Your task to perform on an android device: change the clock display to show seconds Image 0: 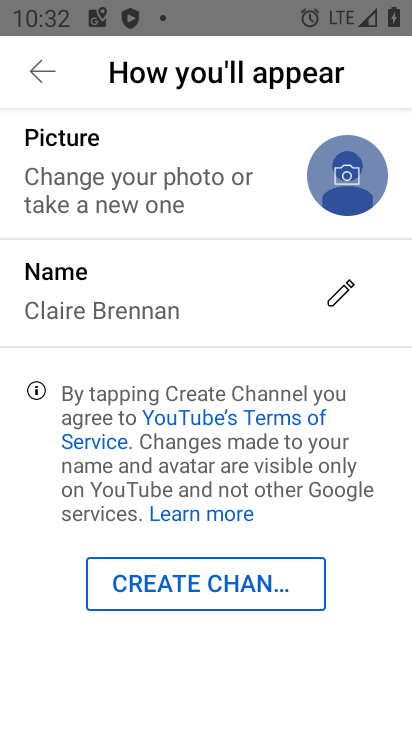
Step 0: press home button
Your task to perform on an android device: change the clock display to show seconds Image 1: 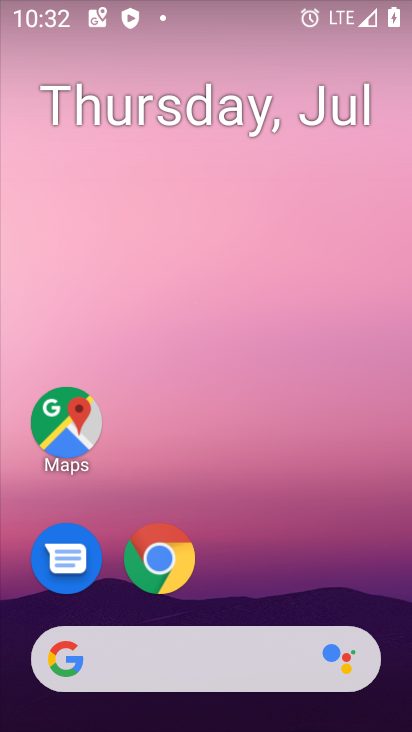
Step 1: drag from (383, 549) to (344, 98)
Your task to perform on an android device: change the clock display to show seconds Image 2: 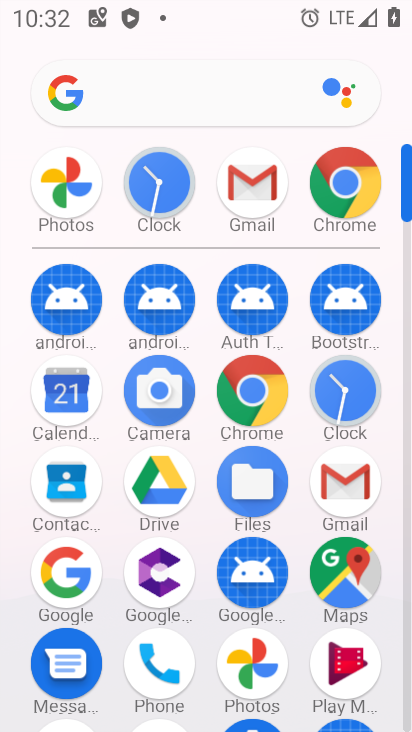
Step 2: click (357, 377)
Your task to perform on an android device: change the clock display to show seconds Image 3: 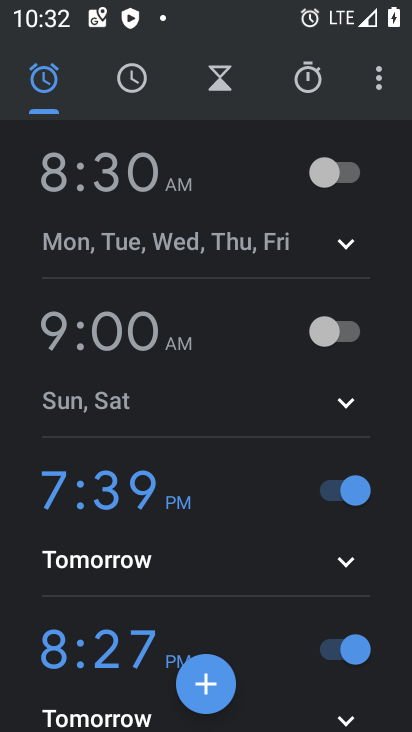
Step 3: click (382, 86)
Your task to perform on an android device: change the clock display to show seconds Image 4: 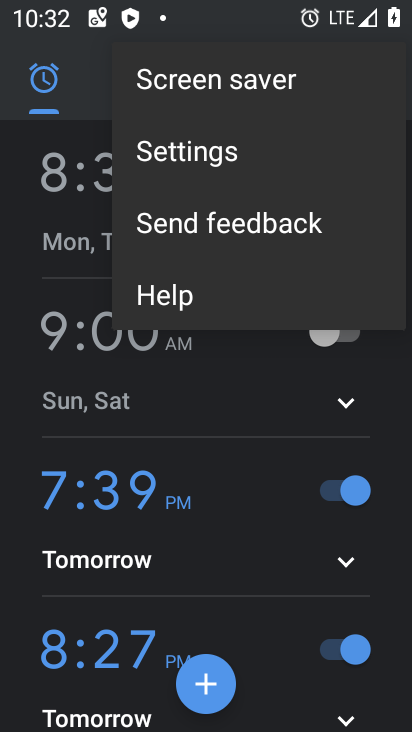
Step 4: click (290, 168)
Your task to perform on an android device: change the clock display to show seconds Image 5: 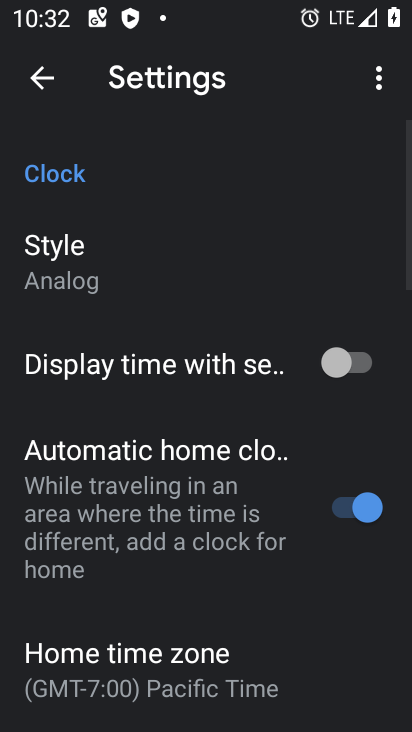
Step 5: drag from (292, 439) to (292, 321)
Your task to perform on an android device: change the clock display to show seconds Image 6: 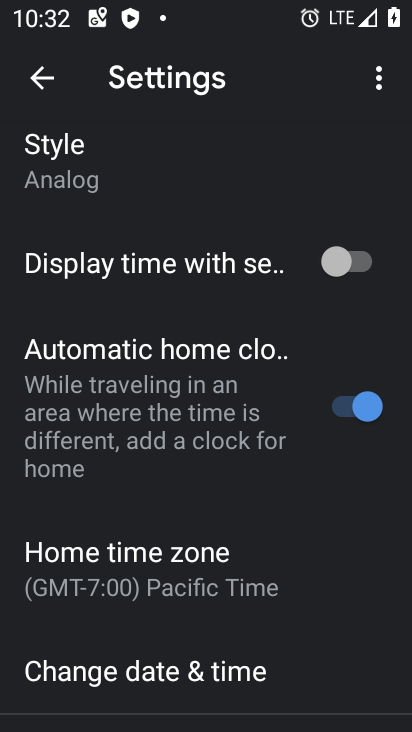
Step 6: drag from (299, 475) to (278, 339)
Your task to perform on an android device: change the clock display to show seconds Image 7: 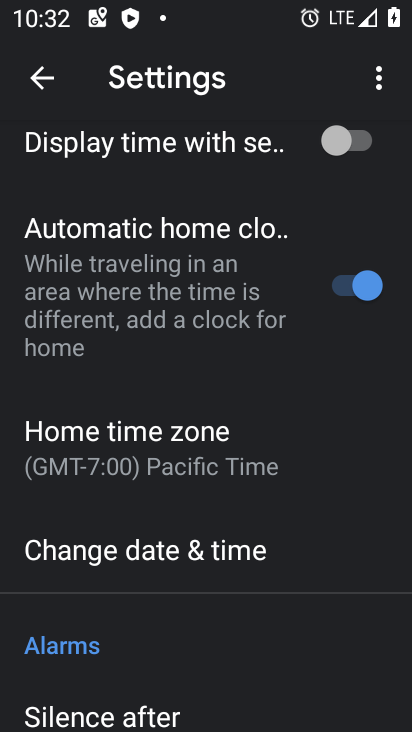
Step 7: drag from (270, 503) to (286, 386)
Your task to perform on an android device: change the clock display to show seconds Image 8: 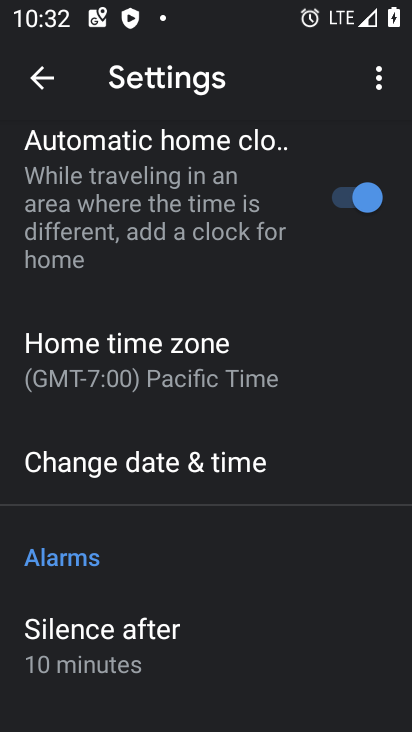
Step 8: drag from (303, 537) to (311, 364)
Your task to perform on an android device: change the clock display to show seconds Image 9: 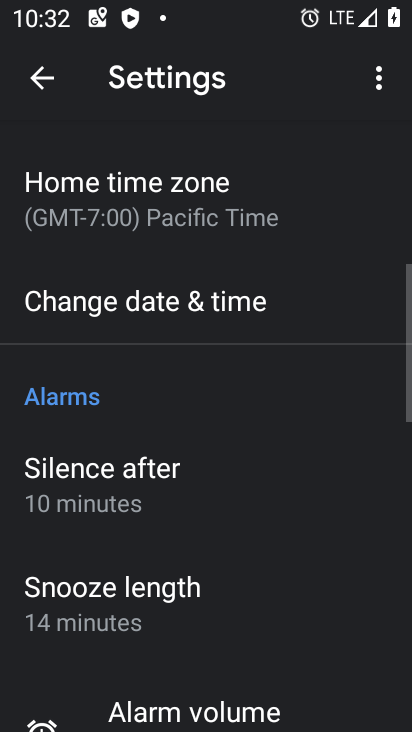
Step 9: drag from (311, 504) to (318, 391)
Your task to perform on an android device: change the clock display to show seconds Image 10: 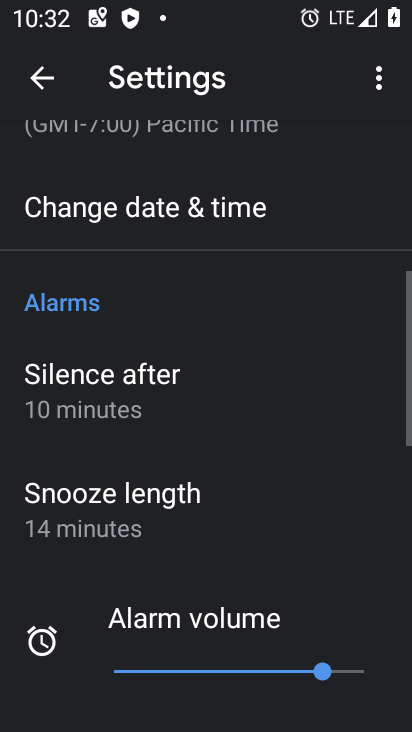
Step 10: drag from (315, 517) to (318, 322)
Your task to perform on an android device: change the clock display to show seconds Image 11: 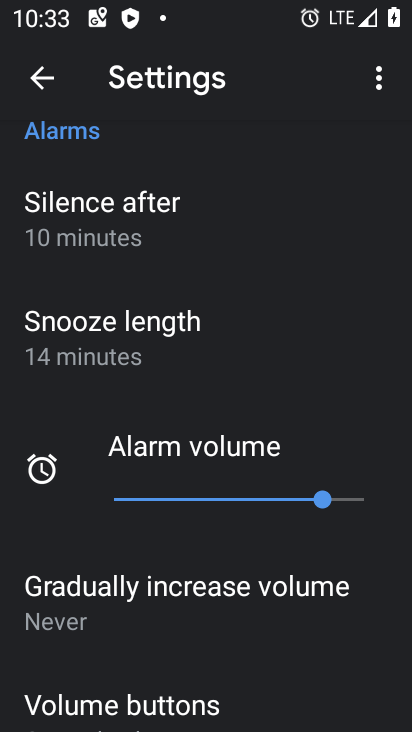
Step 11: drag from (306, 578) to (317, 302)
Your task to perform on an android device: change the clock display to show seconds Image 12: 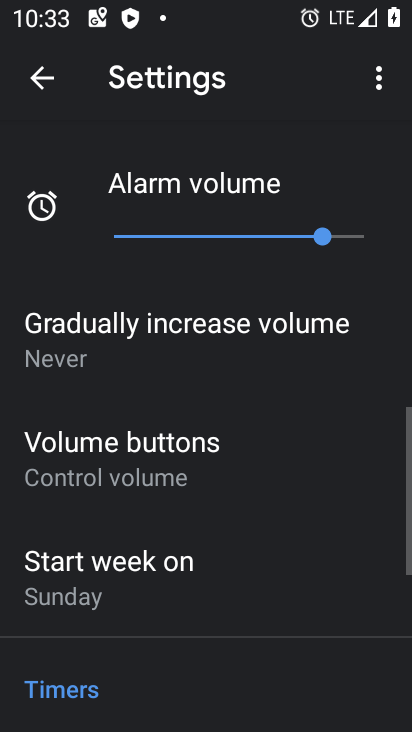
Step 12: drag from (304, 557) to (318, 417)
Your task to perform on an android device: change the clock display to show seconds Image 13: 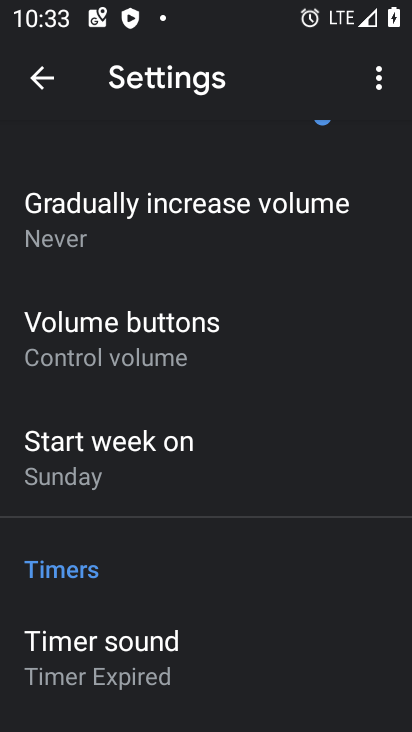
Step 13: drag from (317, 279) to (320, 440)
Your task to perform on an android device: change the clock display to show seconds Image 14: 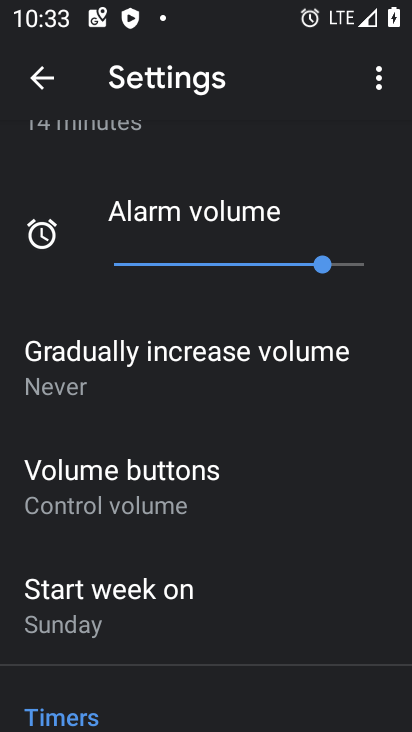
Step 14: drag from (313, 211) to (316, 405)
Your task to perform on an android device: change the clock display to show seconds Image 15: 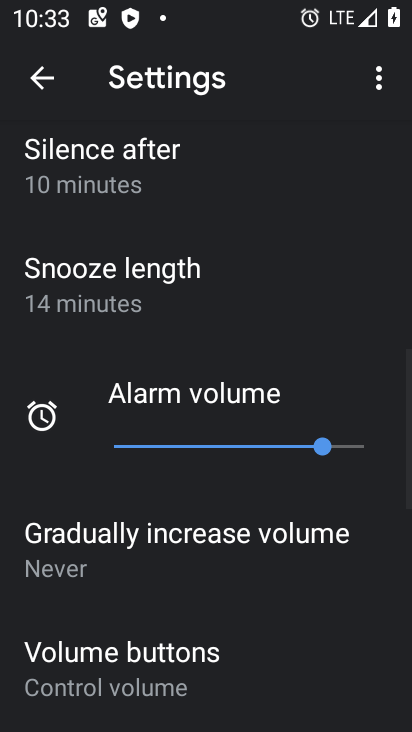
Step 15: drag from (319, 233) to (319, 388)
Your task to perform on an android device: change the clock display to show seconds Image 16: 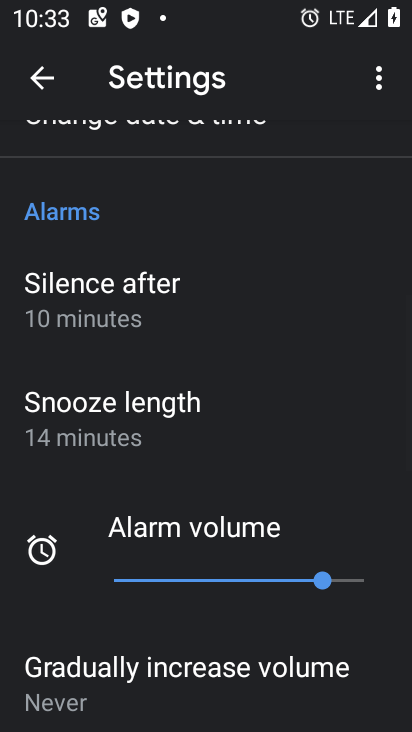
Step 16: drag from (295, 219) to (295, 381)
Your task to perform on an android device: change the clock display to show seconds Image 17: 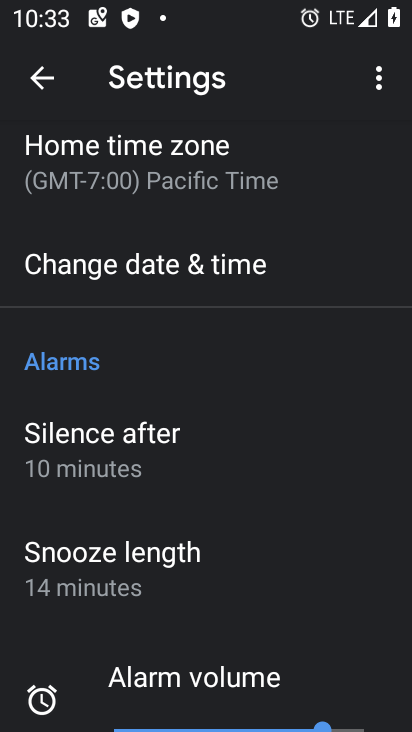
Step 17: drag from (299, 206) to (317, 424)
Your task to perform on an android device: change the clock display to show seconds Image 18: 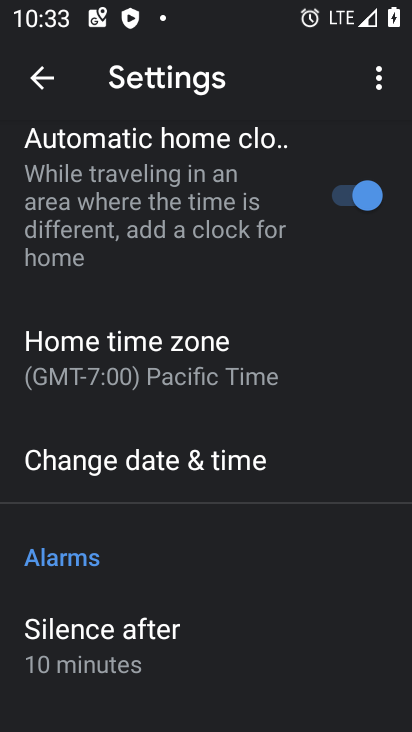
Step 18: drag from (304, 186) to (307, 383)
Your task to perform on an android device: change the clock display to show seconds Image 19: 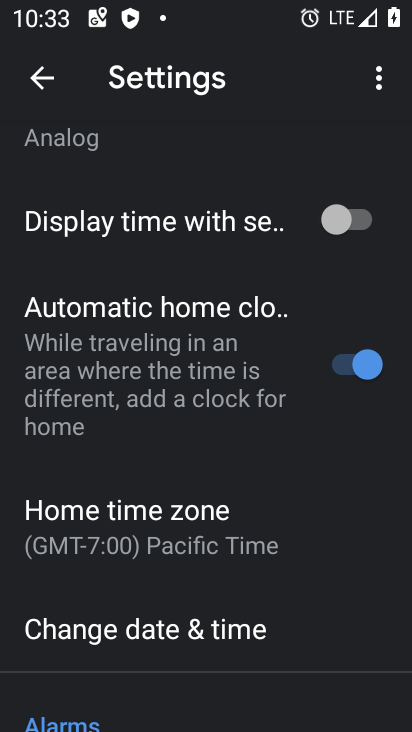
Step 19: click (342, 229)
Your task to perform on an android device: change the clock display to show seconds Image 20: 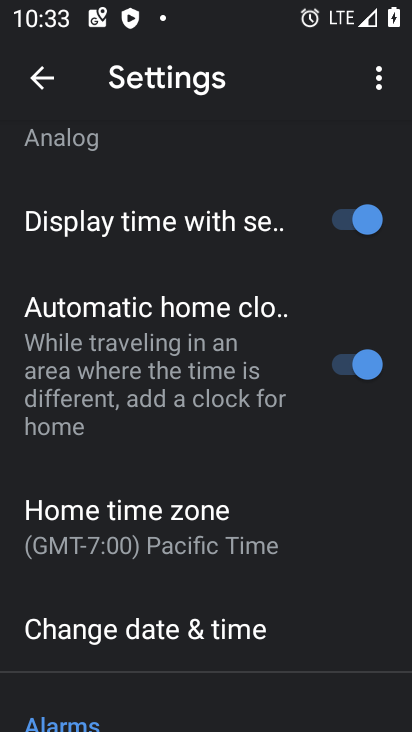
Step 20: task complete